Your task to perform on an android device: View the shopping cart on ebay. Search for macbook pro 15 inch on ebay, select the first entry, add it to the cart, then select checkout. Image 0: 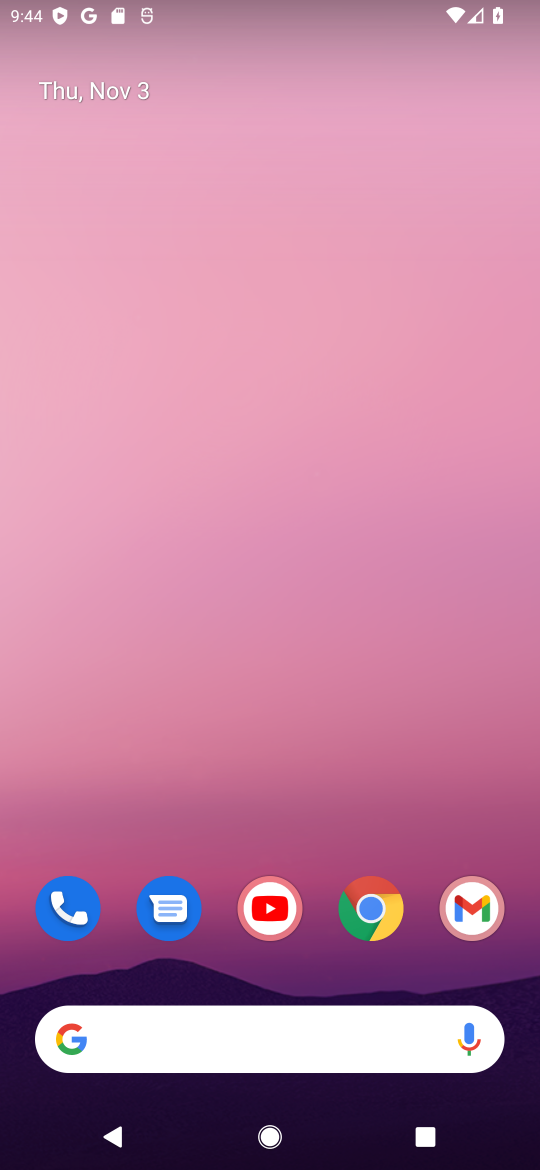
Step 0: click (388, 899)
Your task to perform on an android device: View the shopping cart on ebay. Search for macbook pro 15 inch on ebay, select the first entry, add it to the cart, then select checkout. Image 1: 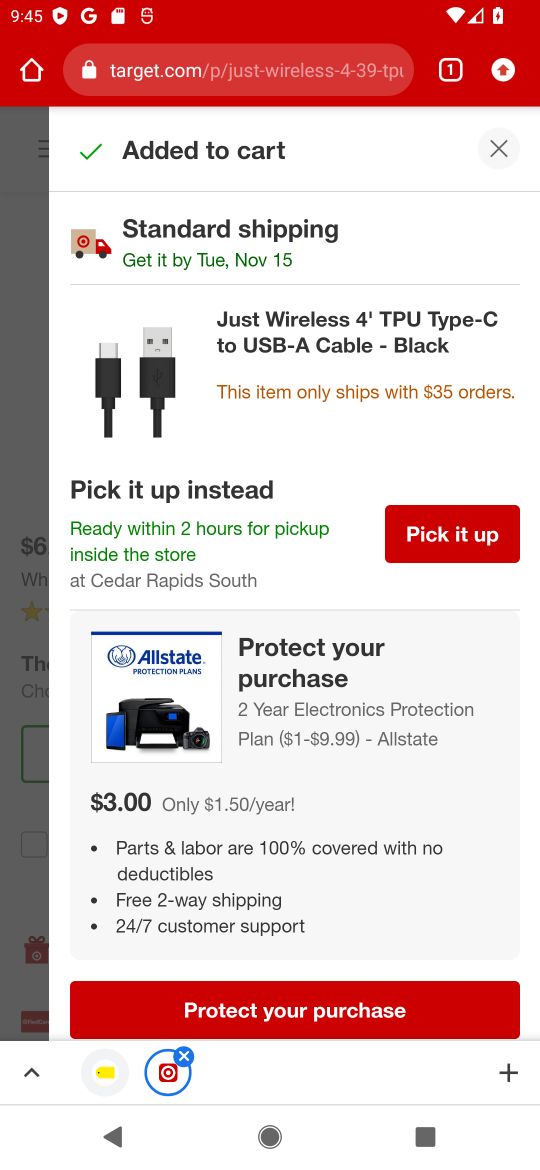
Step 1: click (498, 145)
Your task to perform on an android device: View the shopping cart on ebay. Search for macbook pro 15 inch on ebay, select the first entry, add it to the cart, then select checkout. Image 2: 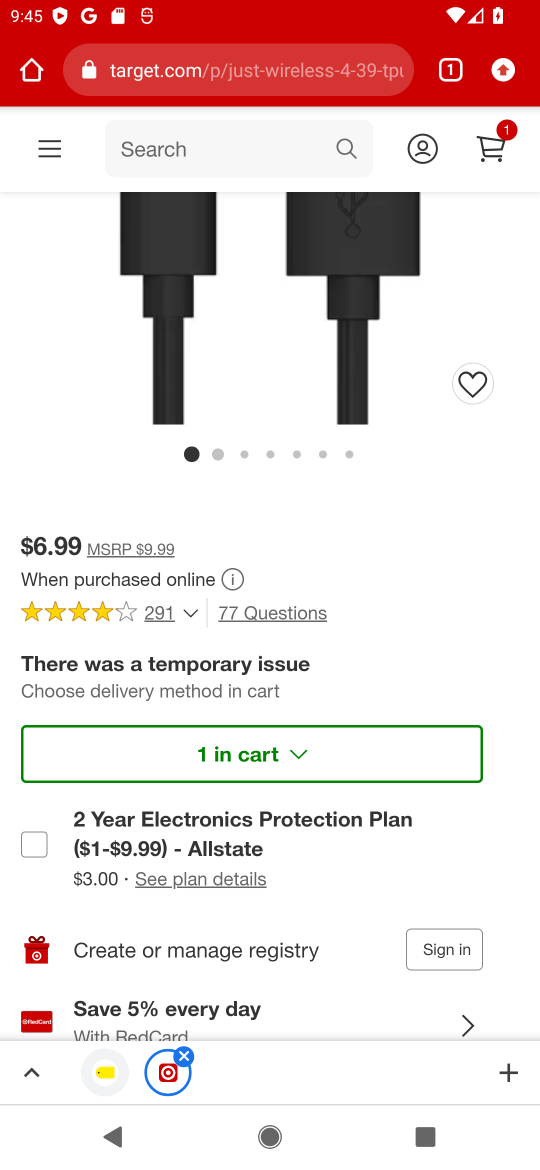
Step 2: click (36, 68)
Your task to perform on an android device: View the shopping cart on ebay. Search for macbook pro 15 inch on ebay, select the first entry, add it to the cart, then select checkout. Image 3: 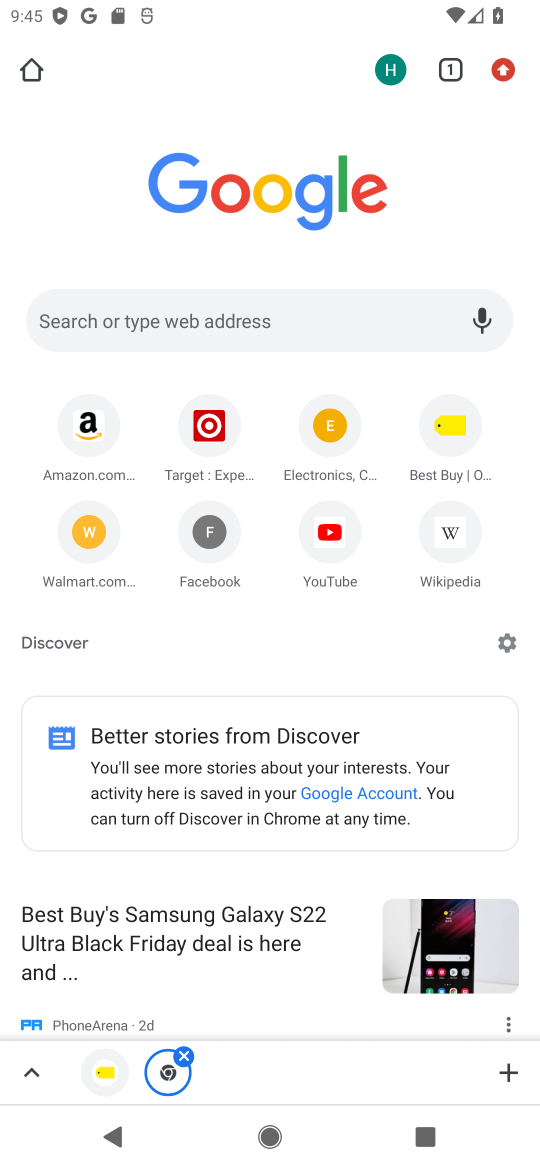
Step 3: click (349, 320)
Your task to perform on an android device: View the shopping cart on ebay. Search for macbook pro 15 inch on ebay, select the first entry, add it to the cart, then select checkout. Image 4: 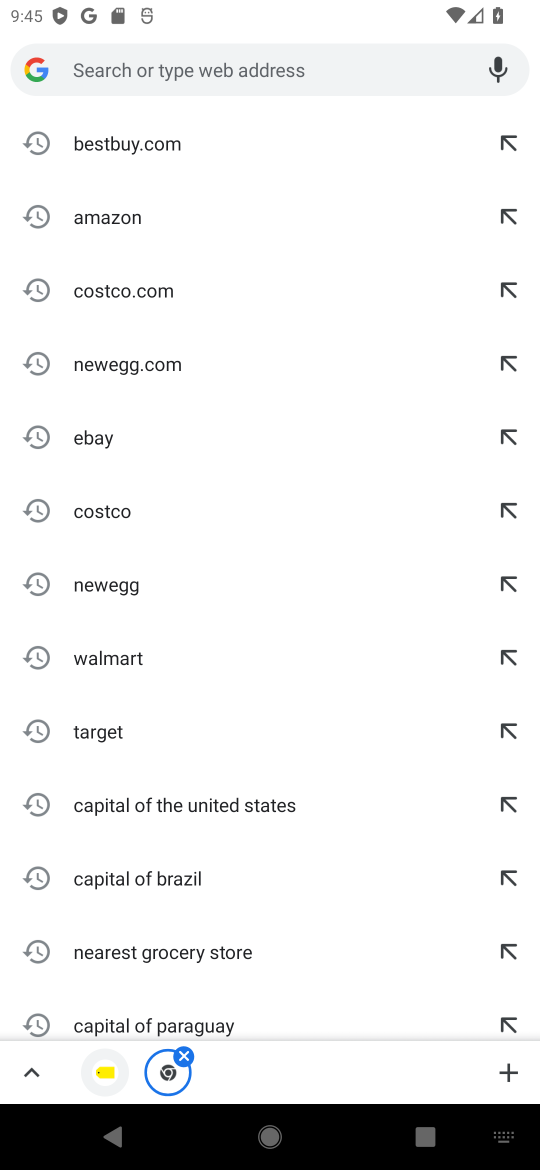
Step 4: click (87, 431)
Your task to perform on an android device: View the shopping cart on ebay. Search for macbook pro 15 inch on ebay, select the first entry, add it to the cart, then select checkout. Image 5: 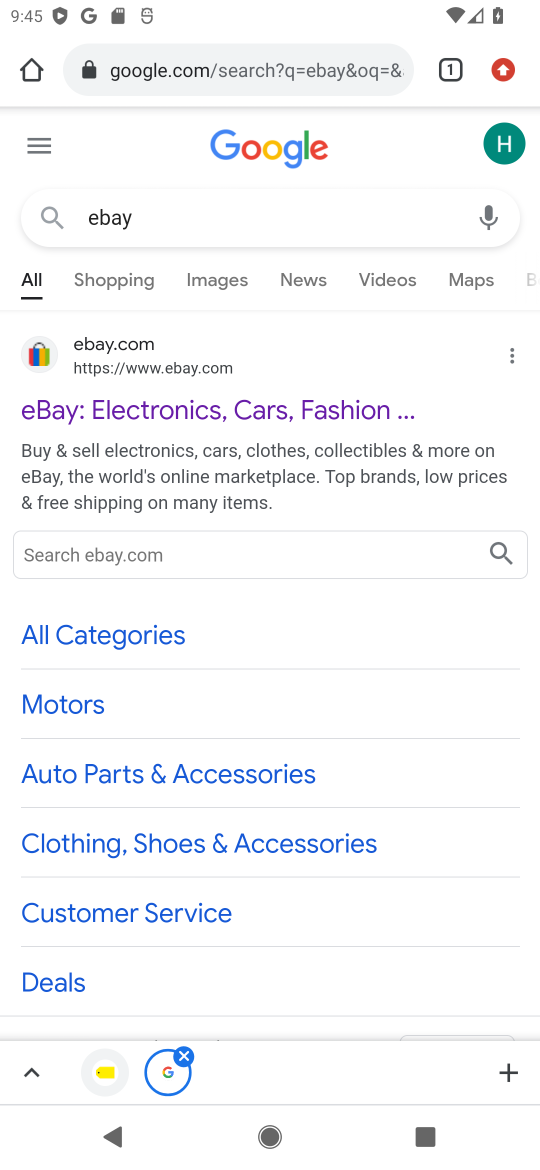
Step 5: click (151, 366)
Your task to perform on an android device: View the shopping cart on ebay. Search for macbook pro 15 inch on ebay, select the first entry, add it to the cart, then select checkout. Image 6: 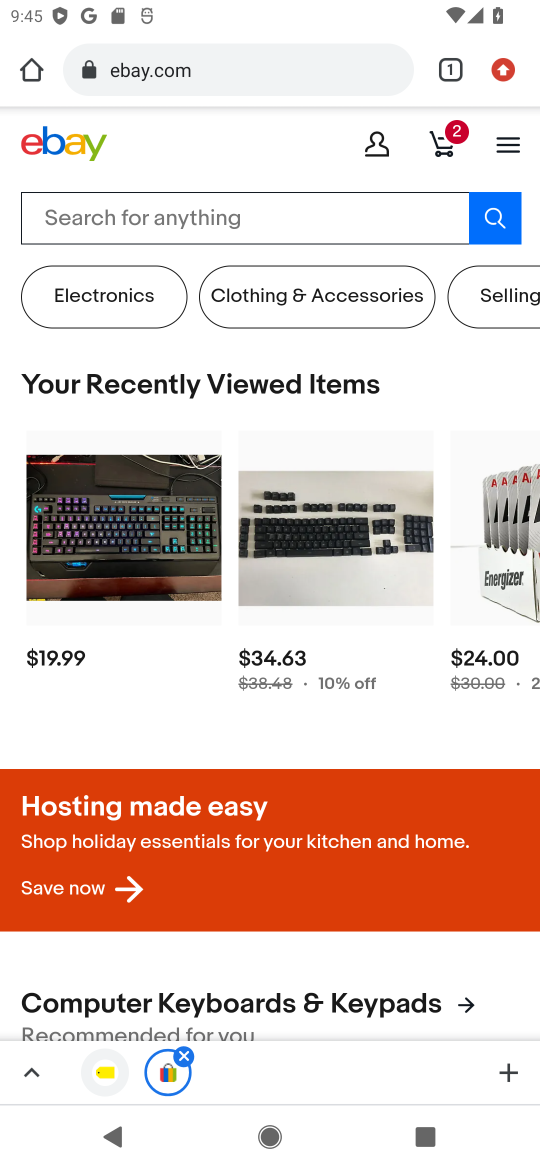
Step 6: click (434, 140)
Your task to perform on an android device: View the shopping cart on ebay. Search for macbook pro 15 inch on ebay, select the first entry, add it to the cart, then select checkout. Image 7: 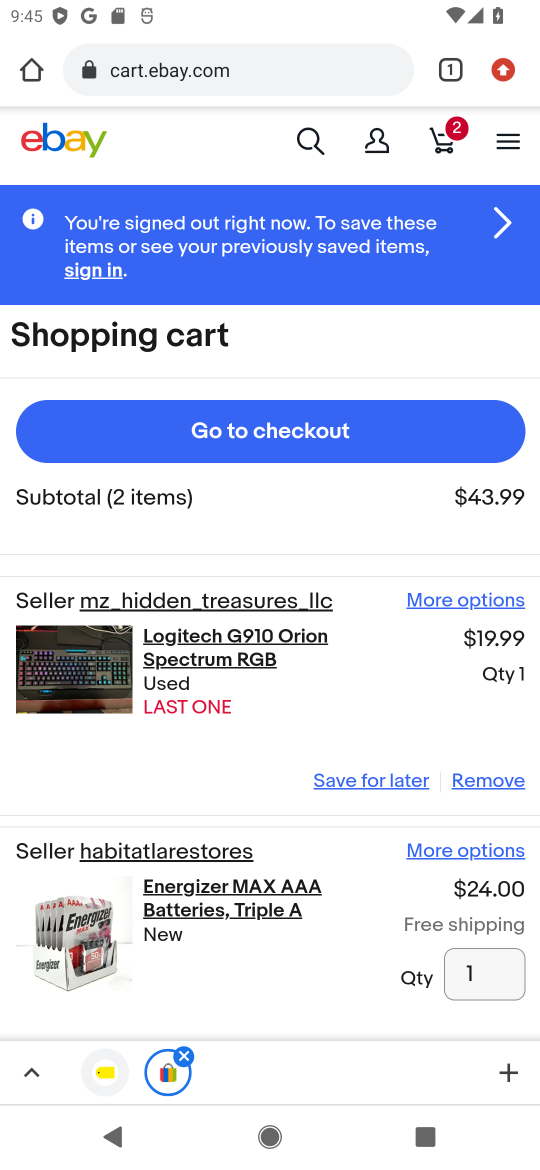
Step 7: click (295, 136)
Your task to perform on an android device: View the shopping cart on ebay. Search for macbook pro 15 inch on ebay, select the first entry, add it to the cart, then select checkout. Image 8: 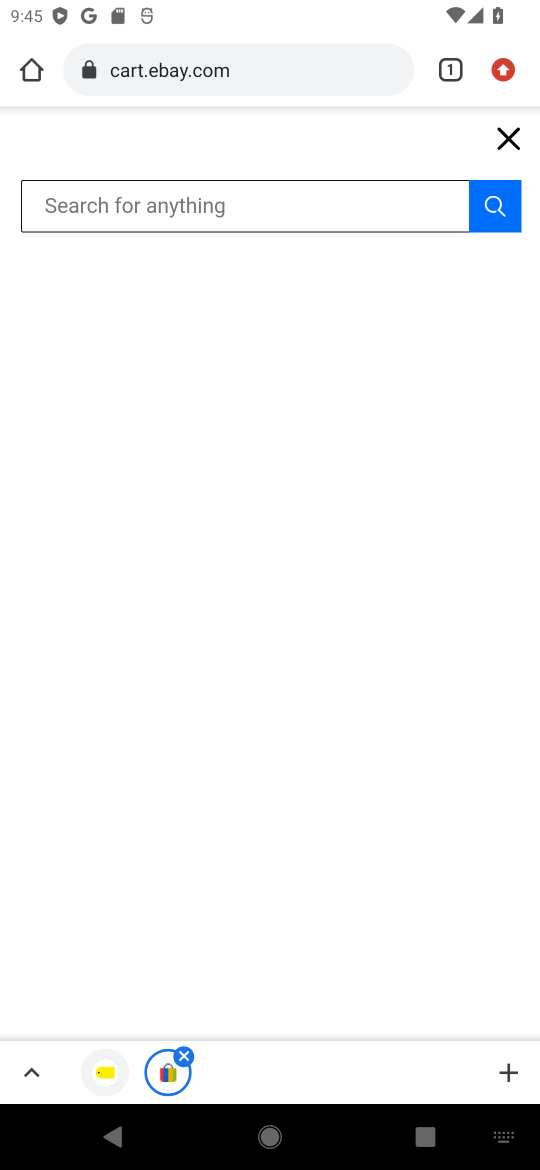
Step 8: type "macbook pro 15"
Your task to perform on an android device: View the shopping cart on ebay. Search for macbook pro 15 inch on ebay, select the first entry, add it to the cart, then select checkout. Image 9: 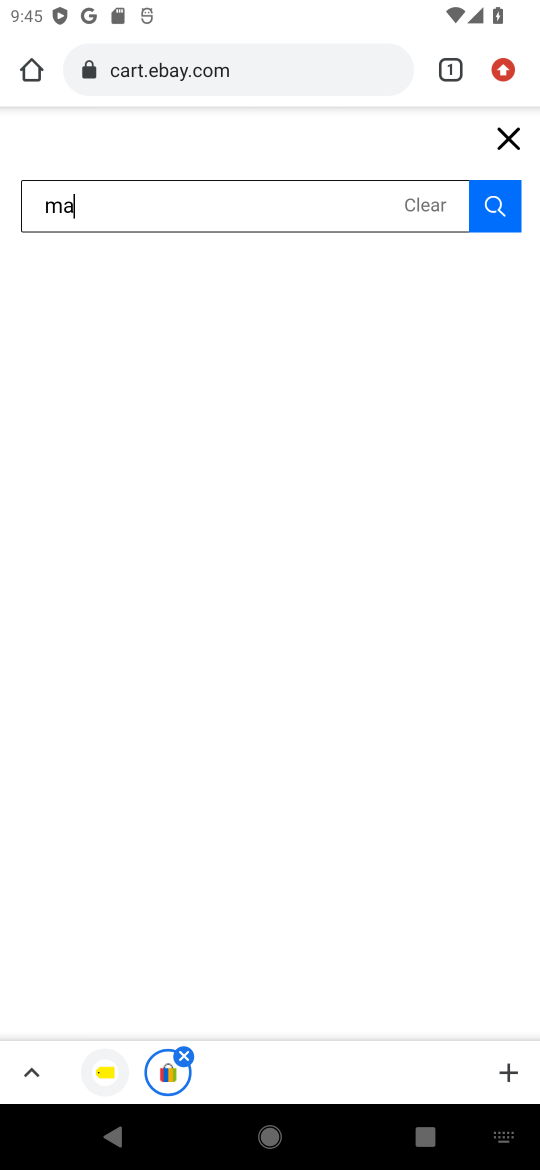
Step 9: press enter
Your task to perform on an android device: View the shopping cart on ebay. Search for macbook pro 15 inch on ebay, select the first entry, add it to the cart, then select checkout. Image 10: 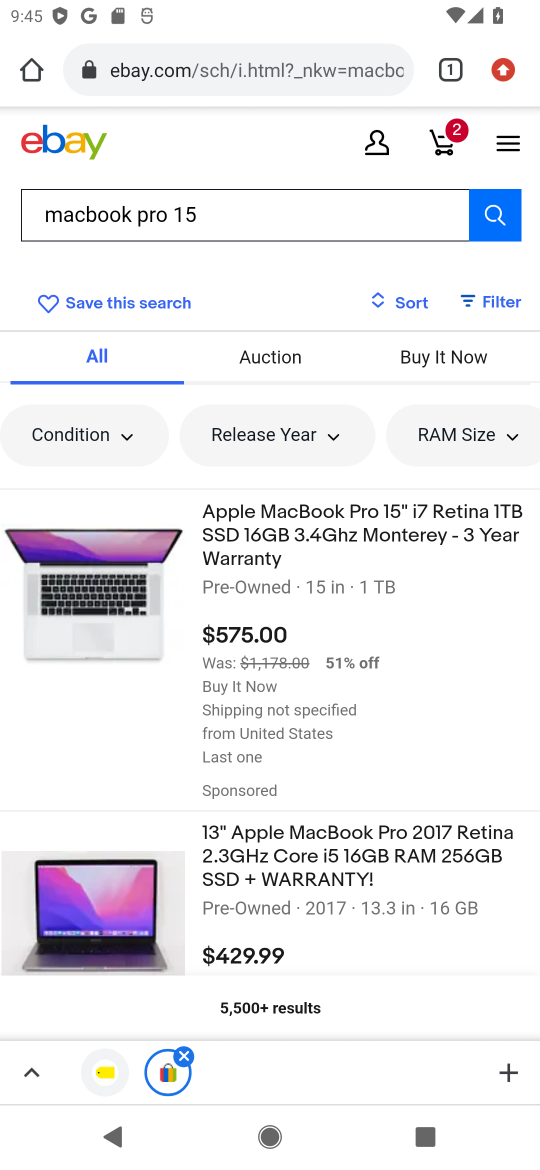
Step 10: drag from (438, 864) to (423, 527)
Your task to perform on an android device: View the shopping cart on ebay. Search for macbook pro 15 inch on ebay, select the first entry, add it to the cart, then select checkout. Image 11: 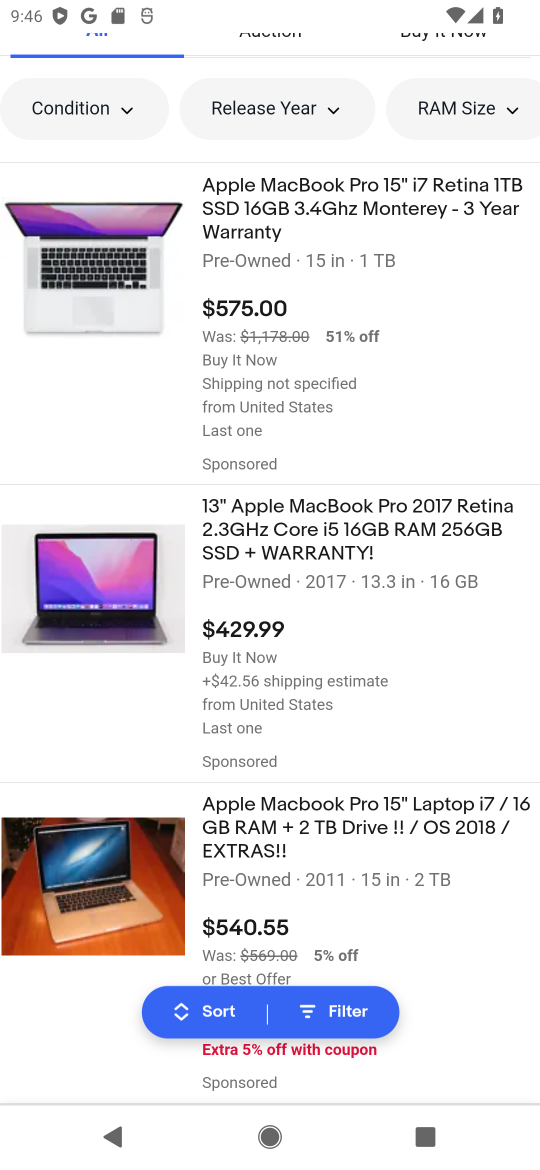
Step 11: drag from (389, 467) to (433, 932)
Your task to perform on an android device: View the shopping cart on ebay. Search for macbook pro 15 inch on ebay, select the first entry, add it to the cart, then select checkout. Image 12: 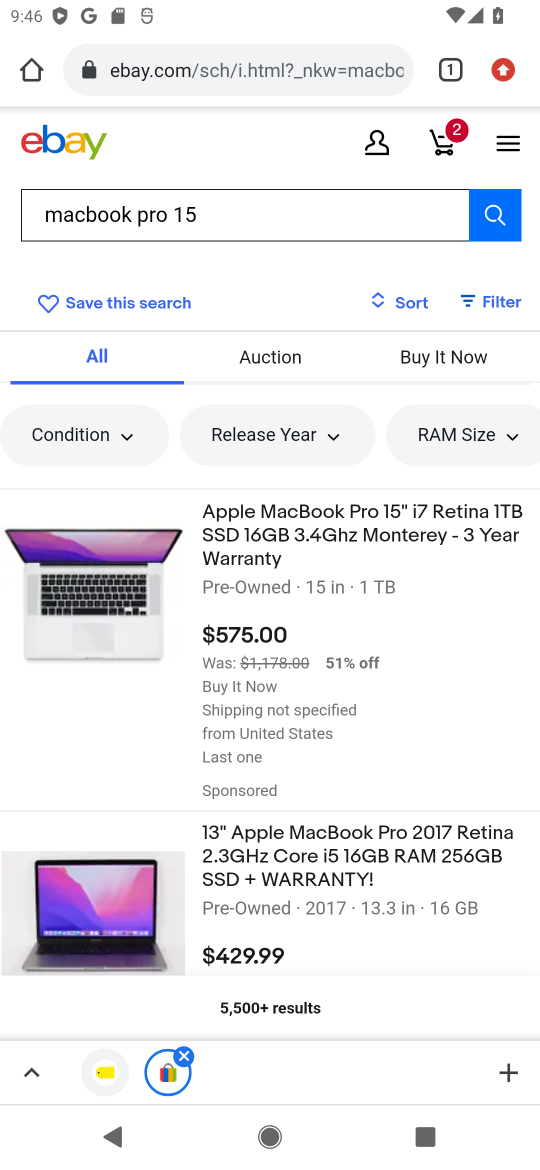
Step 12: click (371, 525)
Your task to perform on an android device: View the shopping cart on ebay. Search for macbook pro 15 inch on ebay, select the first entry, add it to the cart, then select checkout. Image 13: 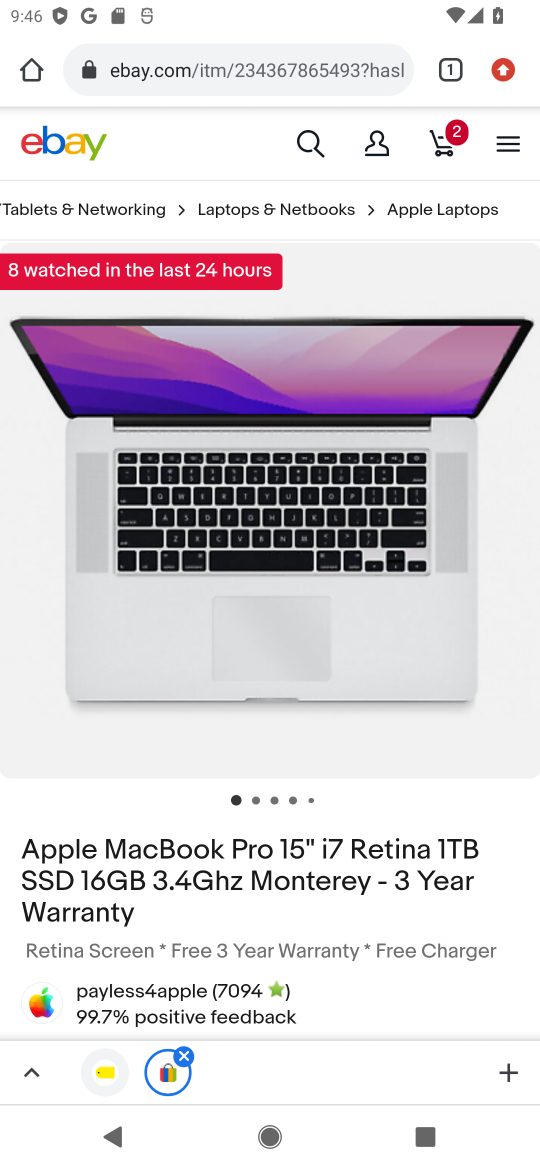
Step 13: drag from (406, 903) to (379, 465)
Your task to perform on an android device: View the shopping cart on ebay. Search for macbook pro 15 inch on ebay, select the first entry, add it to the cart, then select checkout. Image 14: 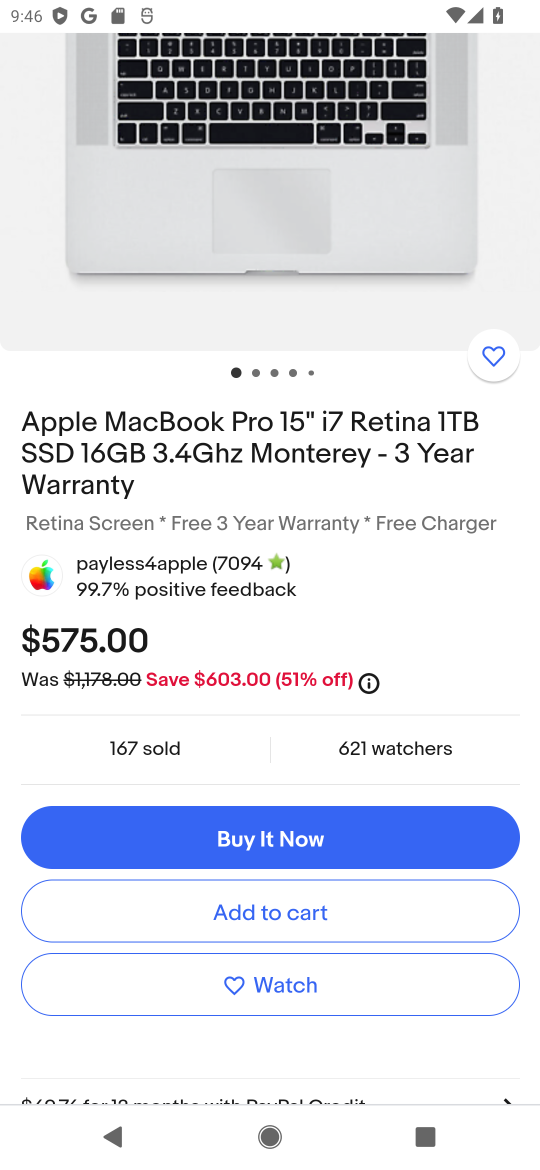
Step 14: click (357, 904)
Your task to perform on an android device: View the shopping cart on ebay. Search for macbook pro 15 inch on ebay, select the first entry, add it to the cart, then select checkout. Image 15: 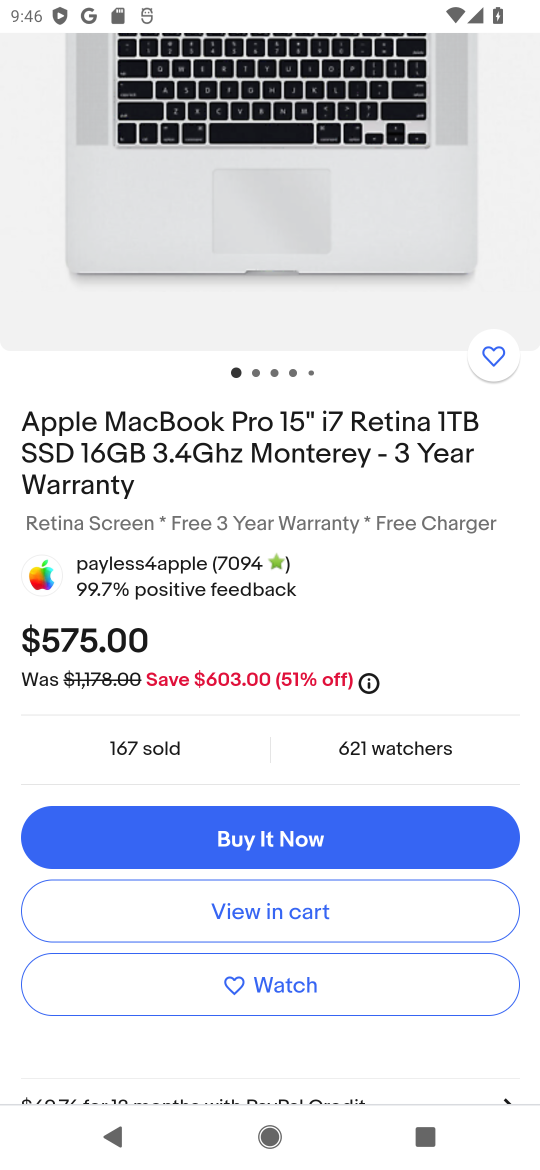
Step 15: click (274, 916)
Your task to perform on an android device: View the shopping cart on ebay. Search for macbook pro 15 inch on ebay, select the first entry, add it to the cart, then select checkout. Image 16: 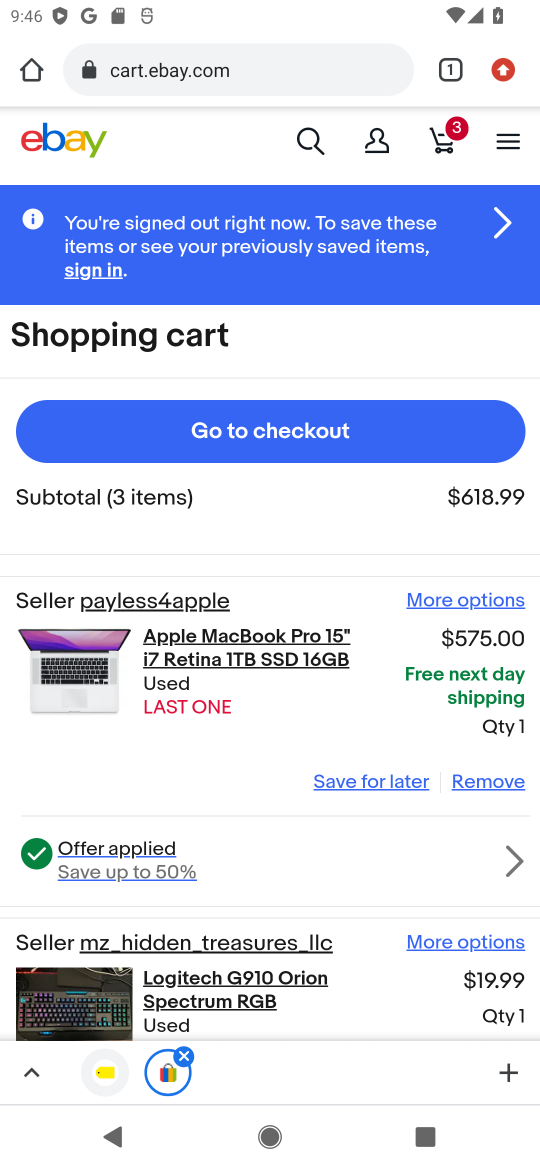
Step 16: click (329, 431)
Your task to perform on an android device: View the shopping cart on ebay. Search for macbook pro 15 inch on ebay, select the first entry, add it to the cart, then select checkout. Image 17: 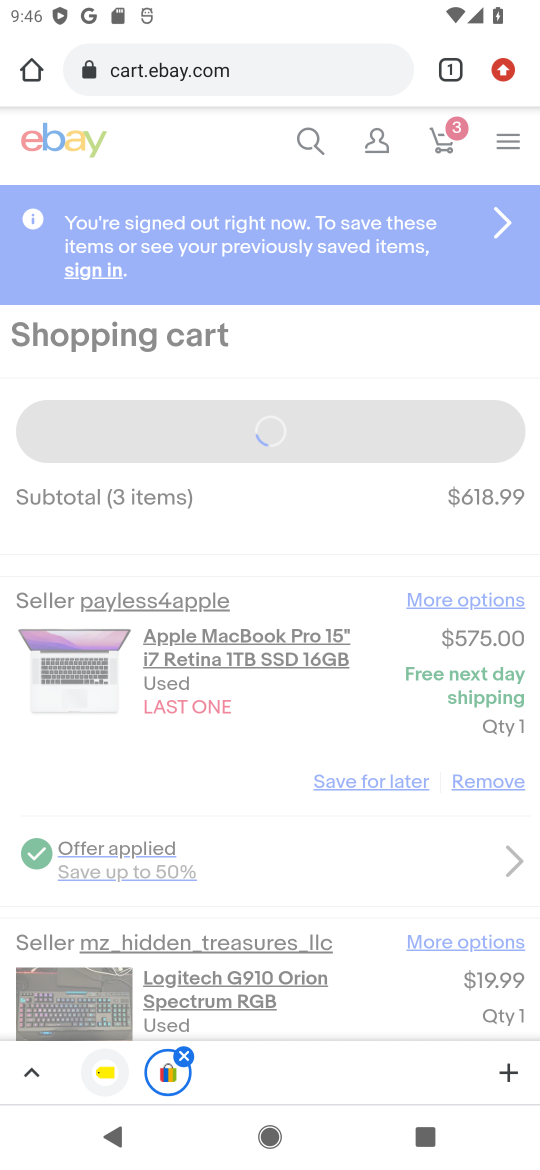
Step 17: task complete